Your task to perform on an android device: Toggle the flashlight Image 0: 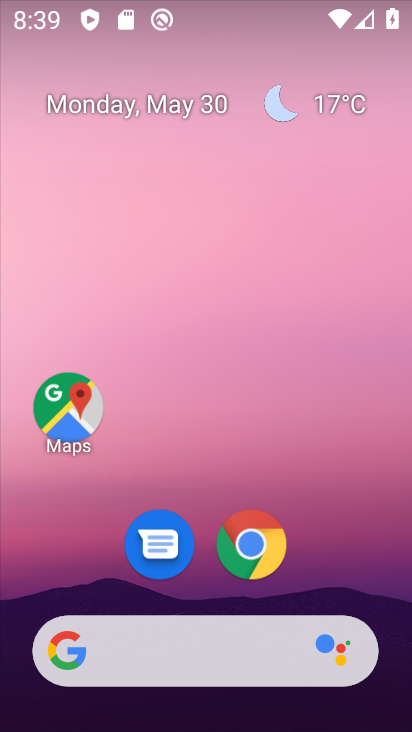
Step 0: drag from (325, 542) to (306, 84)
Your task to perform on an android device: Toggle the flashlight Image 1: 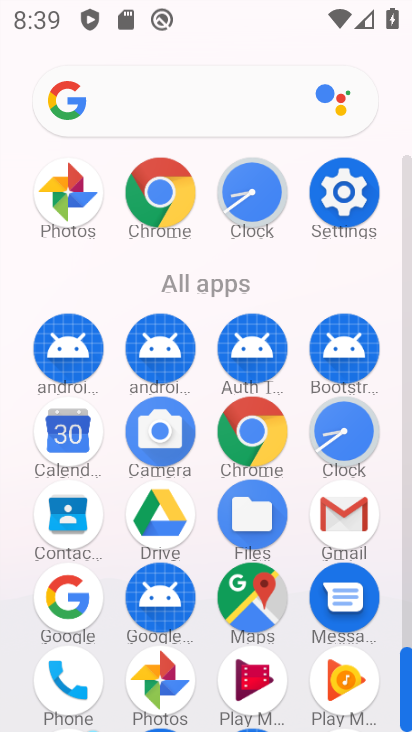
Step 1: click (342, 193)
Your task to perform on an android device: Toggle the flashlight Image 2: 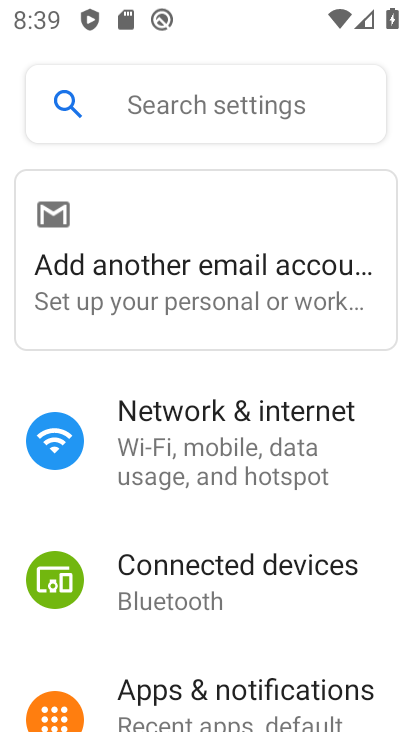
Step 2: drag from (167, 660) to (187, 460)
Your task to perform on an android device: Toggle the flashlight Image 3: 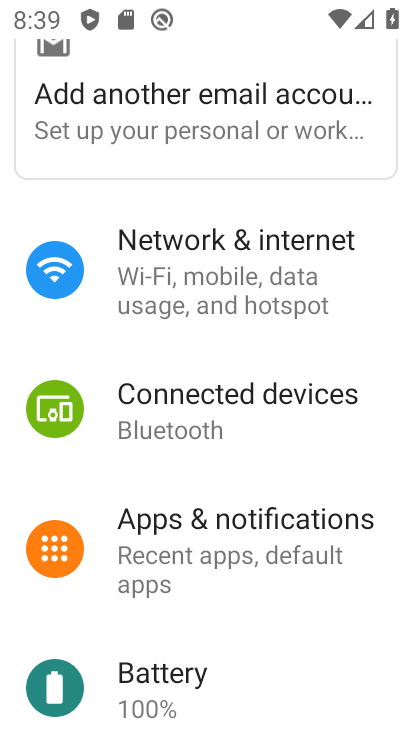
Step 3: drag from (199, 620) to (216, 407)
Your task to perform on an android device: Toggle the flashlight Image 4: 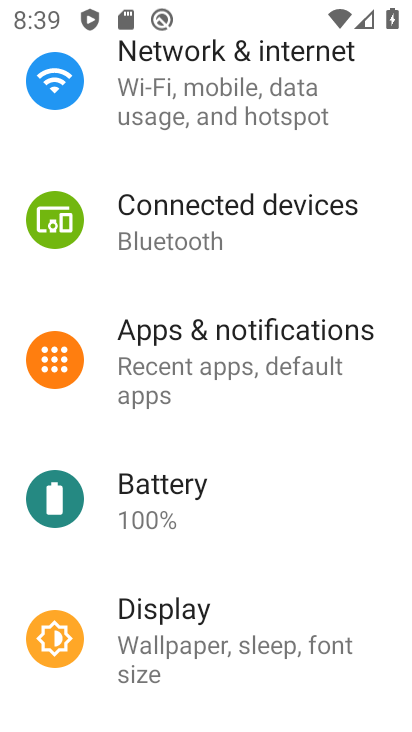
Step 4: drag from (196, 560) to (229, 367)
Your task to perform on an android device: Toggle the flashlight Image 5: 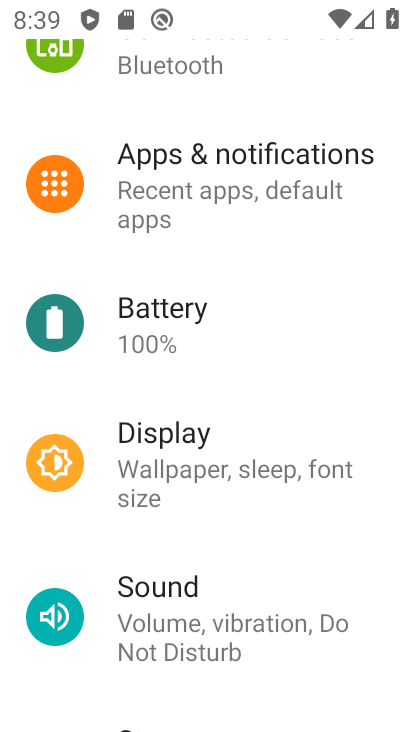
Step 5: drag from (239, 535) to (233, 337)
Your task to perform on an android device: Toggle the flashlight Image 6: 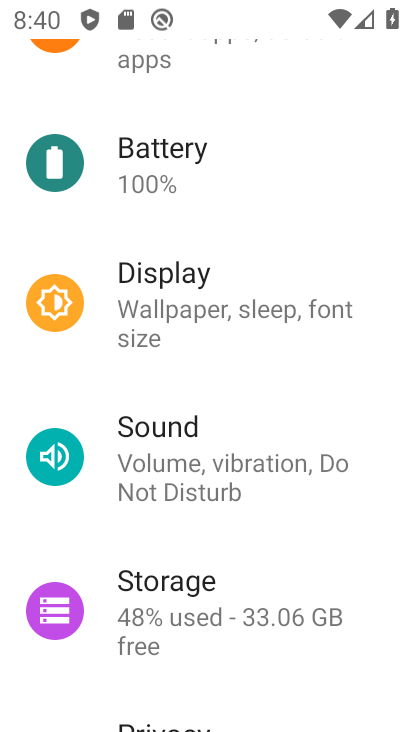
Step 6: drag from (153, 524) to (216, 345)
Your task to perform on an android device: Toggle the flashlight Image 7: 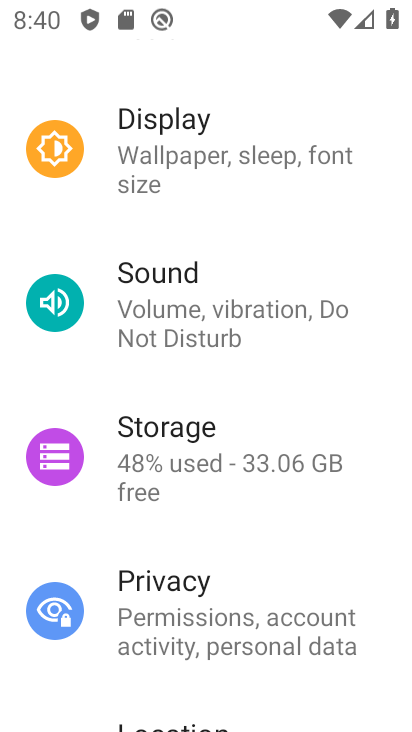
Step 7: drag from (195, 514) to (207, 367)
Your task to perform on an android device: Toggle the flashlight Image 8: 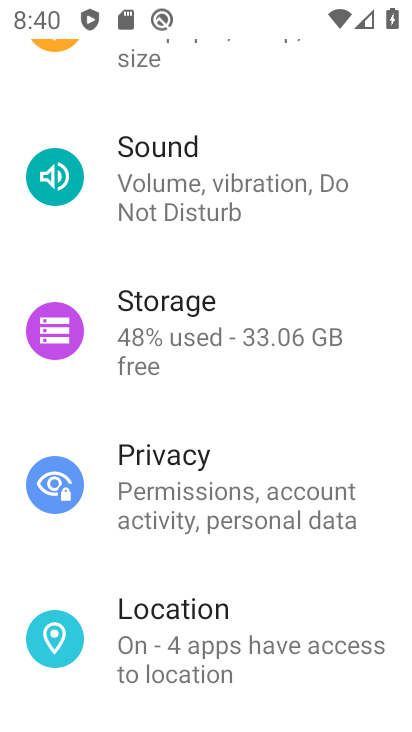
Step 8: drag from (151, 574) to (214, 369)
Your task to perform on an android device: Toggle the flashlight Image 9: 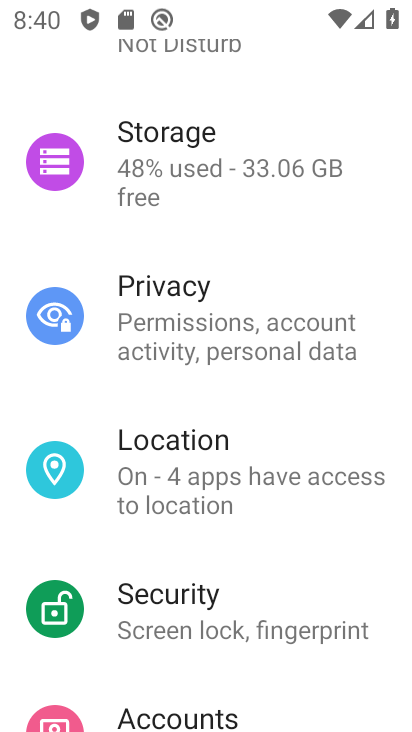
Step 9: drag from (184, 547) to (205, 372)
Your task to perform on an android device: Toggle the flashlight Image 10: 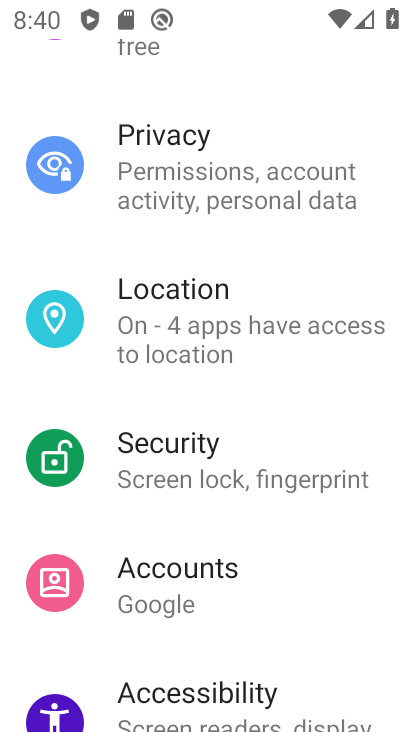
Step 10: drag from (176, 548) to (191, 411)
Your task to perform on an android device: Toggle the flashlight Image 11: 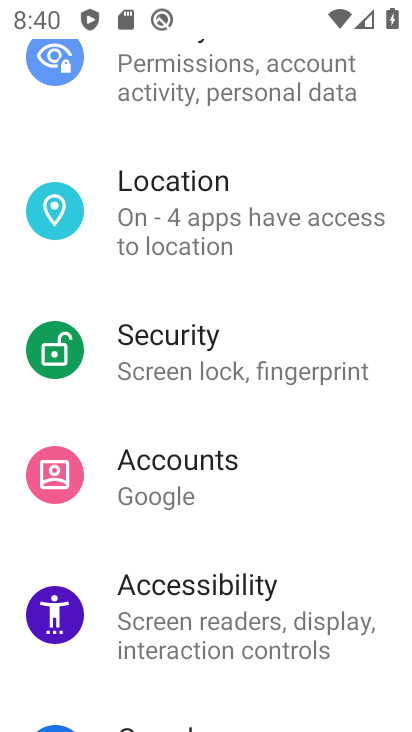
Step 11: click (203, 583)
Your task to perform on an android device: Toggle the flashlight Image 12: 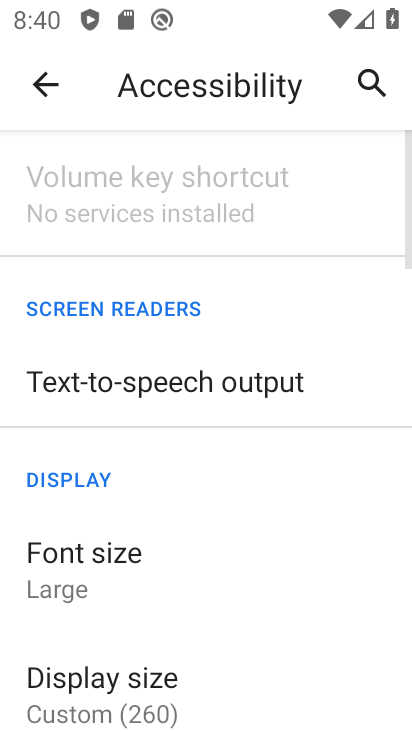
Step 12: drag from (180, 508) to (242, 345)
Your task to perform on an android device: Toggle the flashlight Image 13: 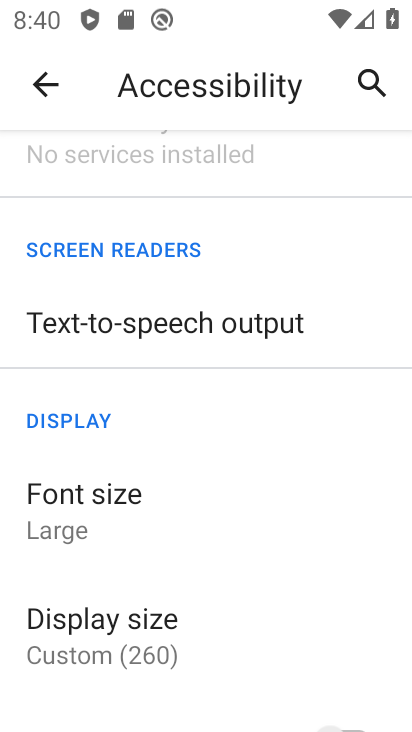
Step 13: drag from (185, 557) to (260, 385)
Your task to perform on an android device: Toggle the flashlight Image 14: 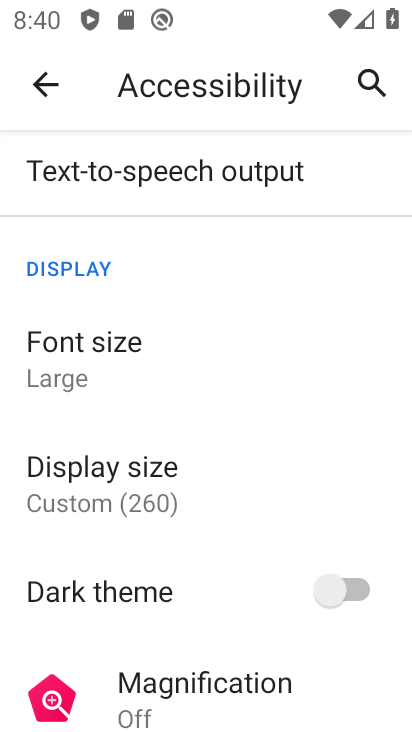
Step 14: drag from (208, 526) to (248, 356)
Your task to perform on an android device: Toggle the flashlight Image 15: 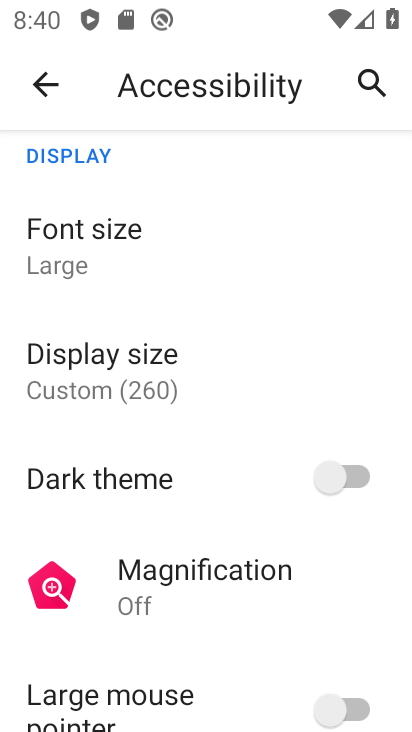
Step 15: drag from (202, 512) to (267, 311)
Your task to perform on an android device: Toggle the flashlight Image 16: 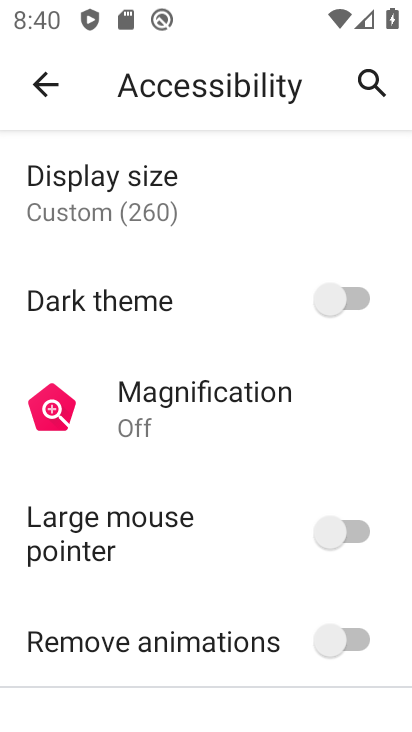
Step 16: drag from (198, 526) to (267, 288)
Your task to perform on an android device: Toggle the flashlight Image 17: 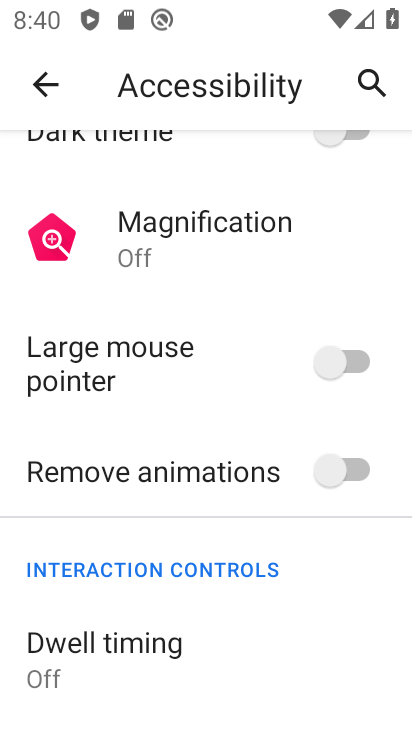
Step 17: drag from (221, 449) to (255, 230)
Your task to perform on an android device: Toggle the flashlight Image 18: 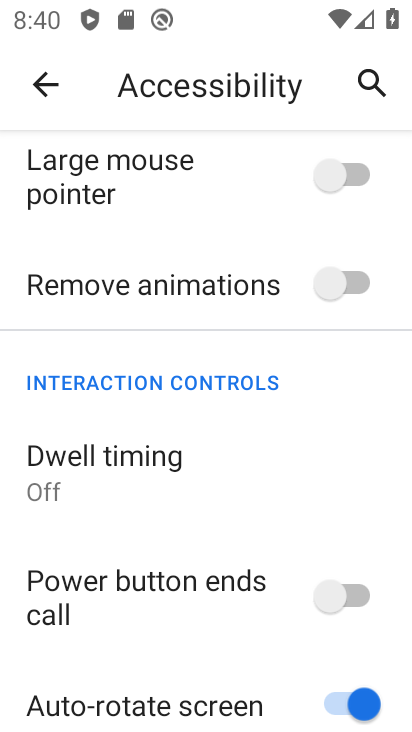
Step 18: click (33, 86)
Your task to perform on an android device: Toggle the flashlight Image 19: 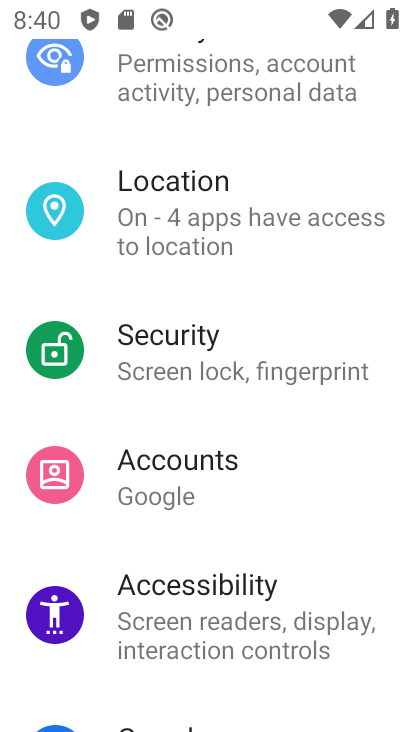
Step 19: task complete